Your task to perform on an android device: Show me the alarms in the clock app Image 0: 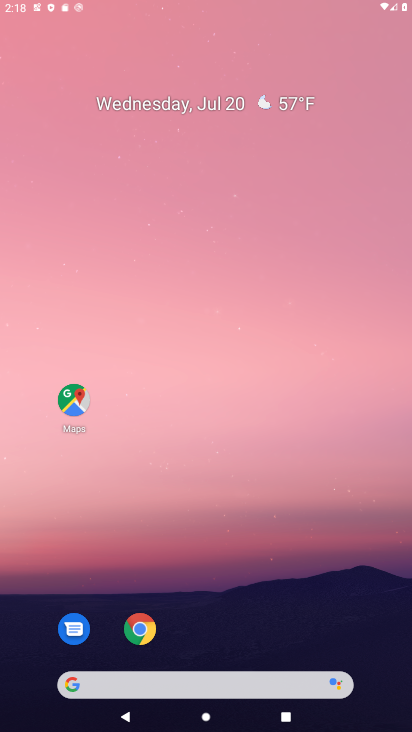
Step 0: drag from (195, 609) to (165, 257)
Your task to perform on an android device: Show me the alarms in the clock app Image 1: 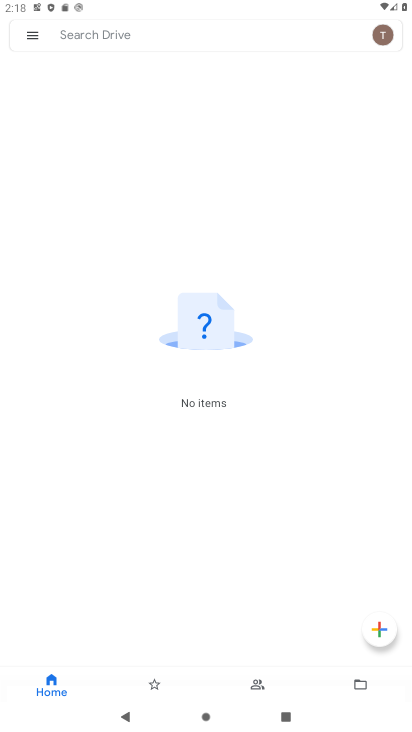
Step 1: press home button
Your task to perform on an android device: Show me the alarms in the clock app Image 2: 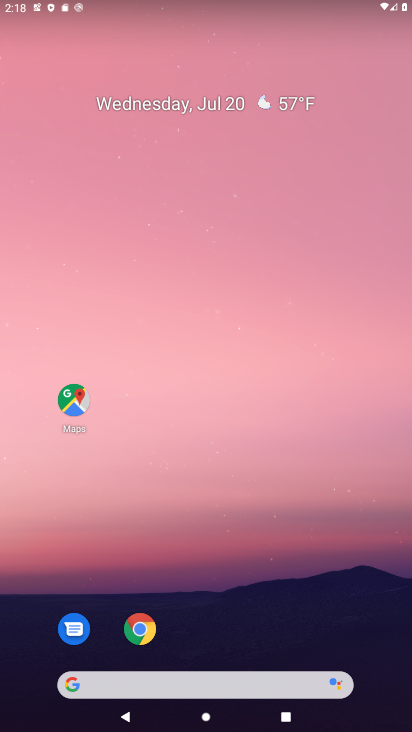
Step 2: drag from (208, 682) to (161, 91)
Your task to perform on an android device: Show me the alarms in the clock app Image 3: 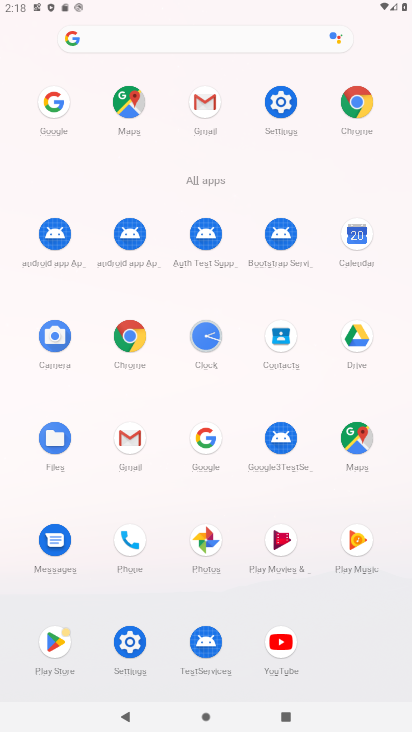
Step 3: click (199, 344)
Your task to perform on an android device: Show me the alarms in the clock app Image 4: 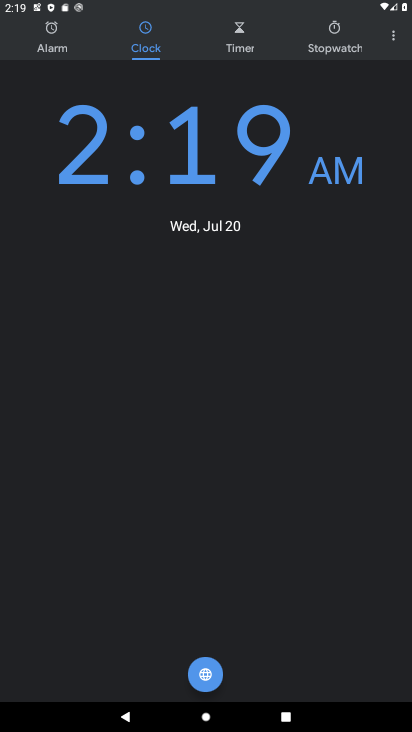
Step 4: click (54, 54)
Your task to perform on an android device: Show me the alarms in the clock app Image 5: 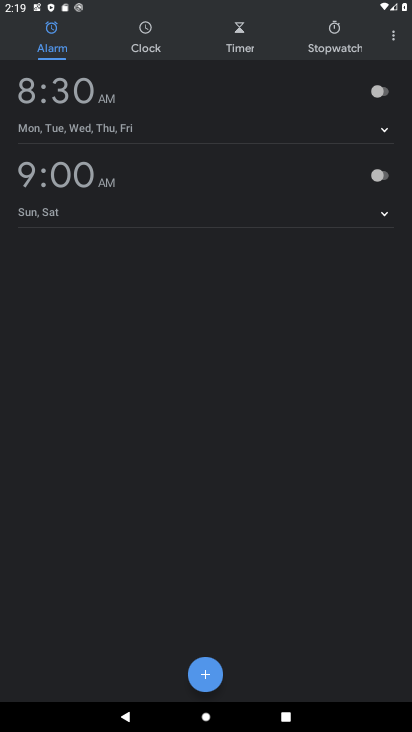
Step 5: task complete